Your task to perform on an android device: turn smart compose on in the gmail app Image 0: 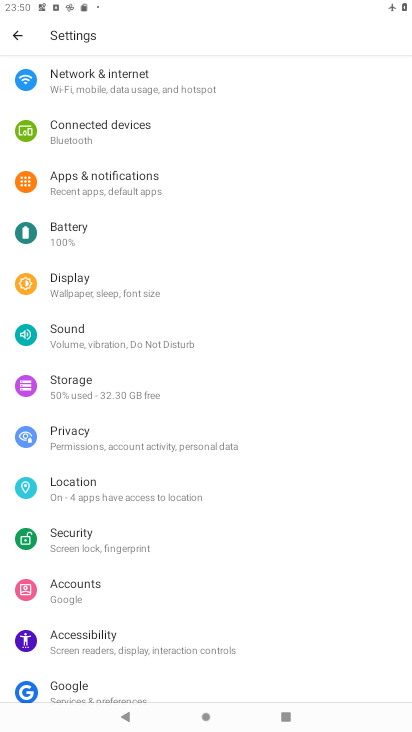
Step 0: press home button
Your task to perform on an android device: turn smart compose on in the gmail app Image 1: 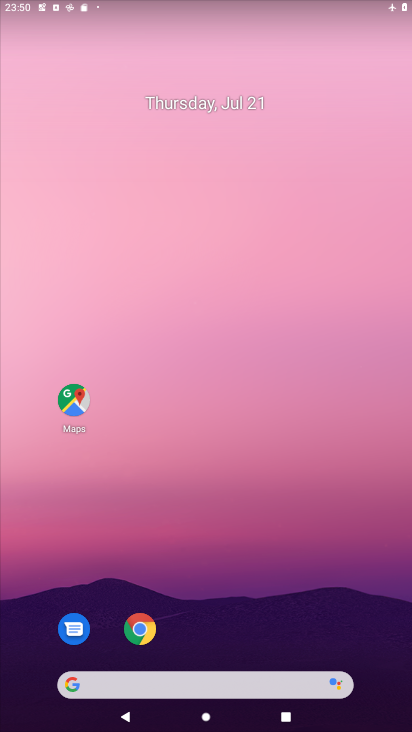
Step 1: drag from (248, 585) to (129, 133)
Your task to perform on an android device: turn smart compose on in the gmail app Image 2: 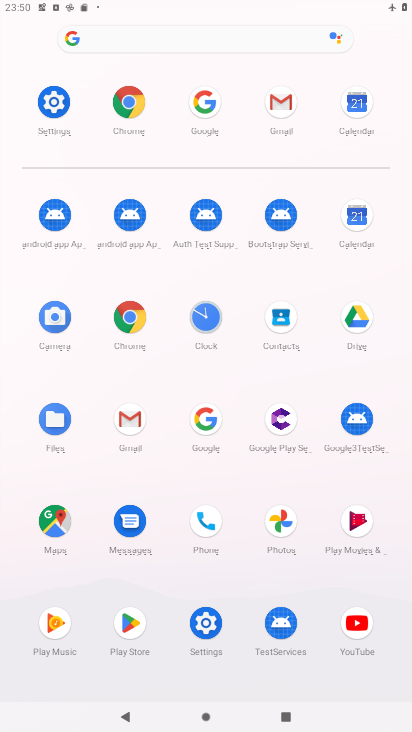
Step 2: click (135, 432)
Your task to perform on an android device: turn smart compose on in the gmail app Image 3: 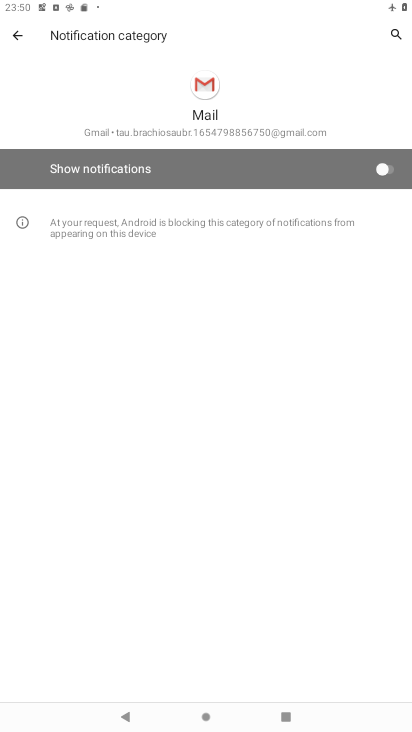
Step 3: task complete